Your task to perform on an android device: Open the stopwatch Image 0: 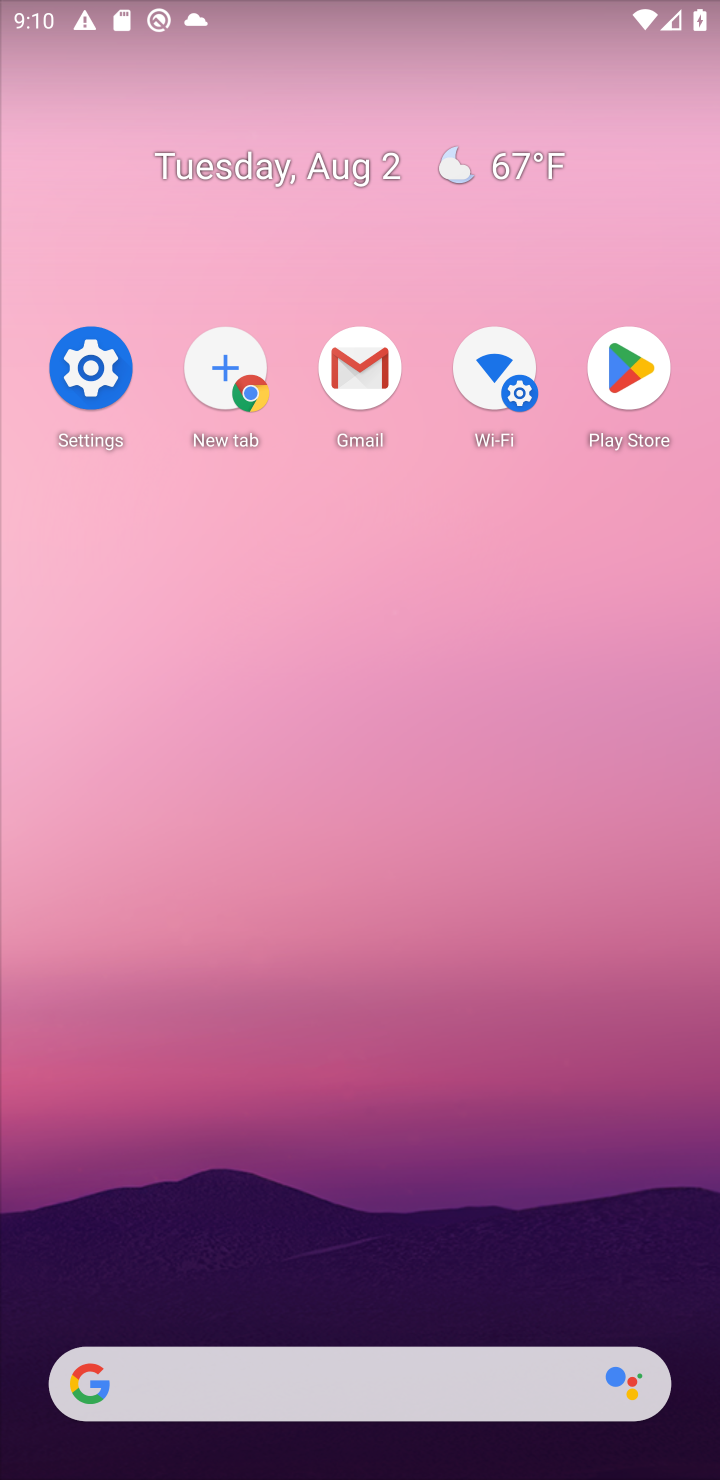
Step 0: drag from (428, 551) to (413, 301)
Your task to perform on an android device: Open the stopwatch Image 1: 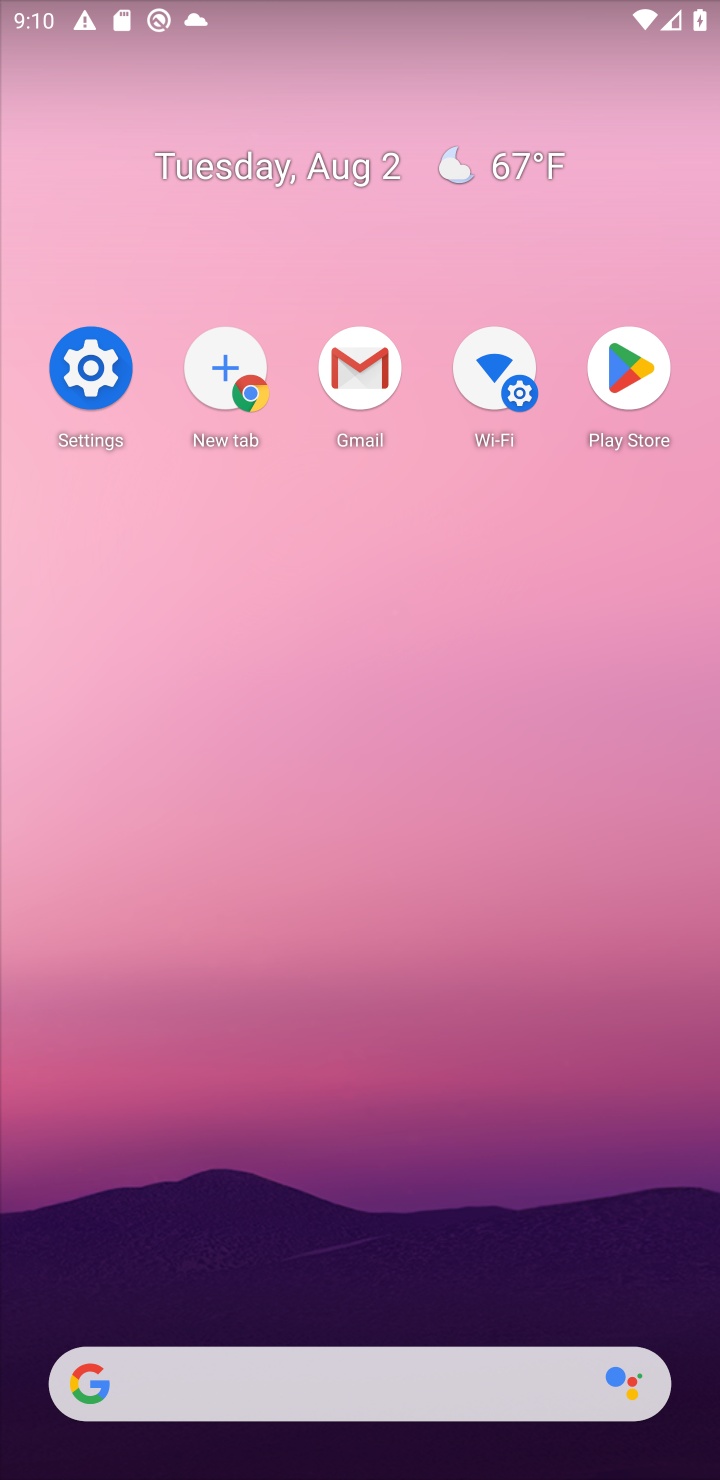
Step 1: drag from (400, 634) to (404, 168)
Your task to perform on an android device: Open the stopwatch Image 2: 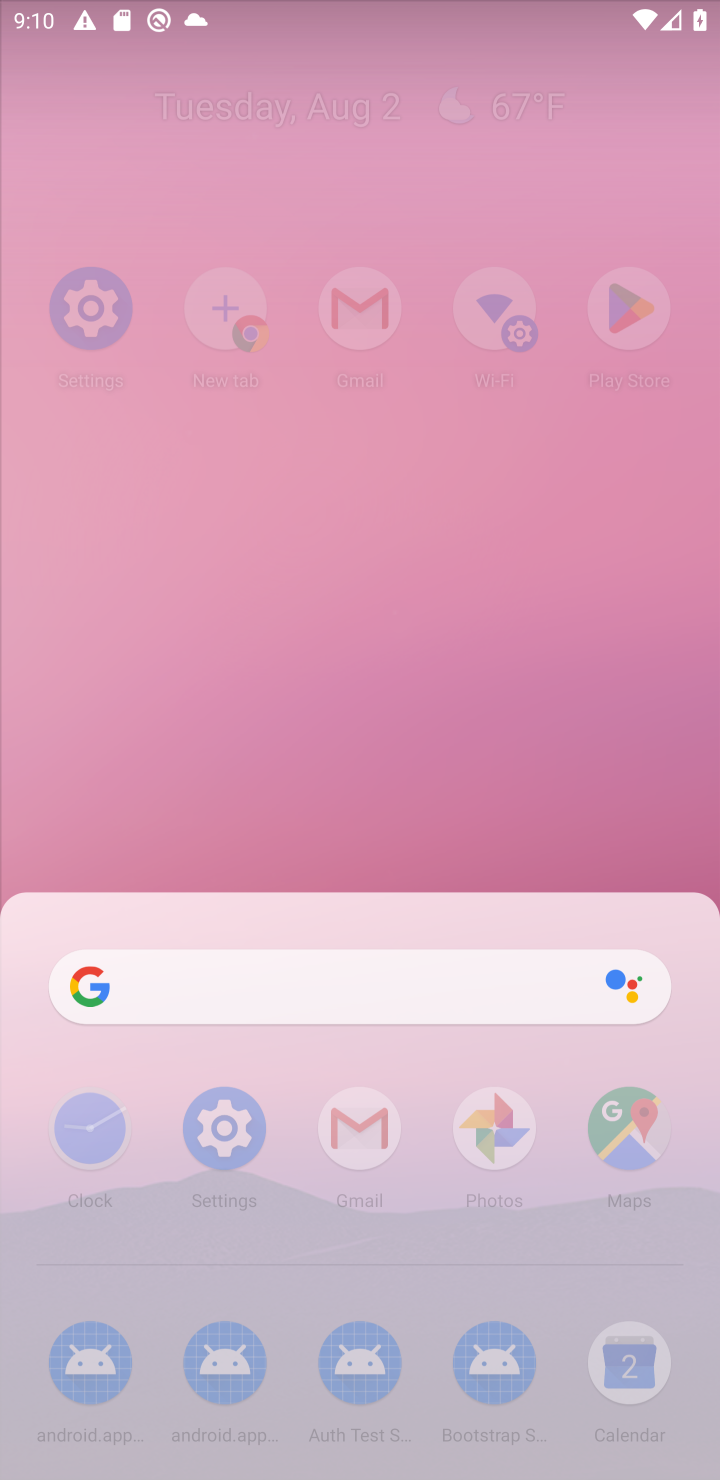
Step 2: click (335, 194)
Your task to perform on an android device: Open the stopwatch Image 3: 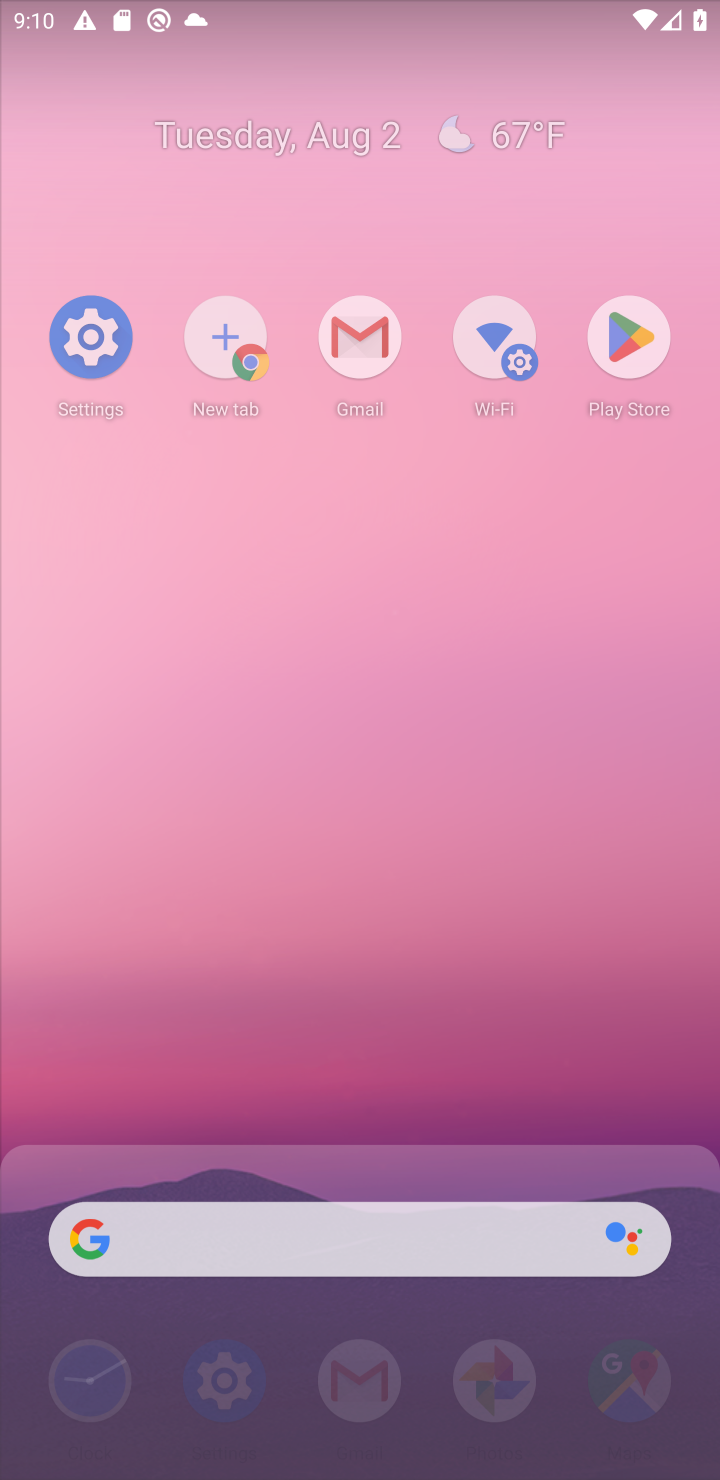
Step 3: click (269, 135)
Your task to perform on an android device: Open the stopwatch Image 4: 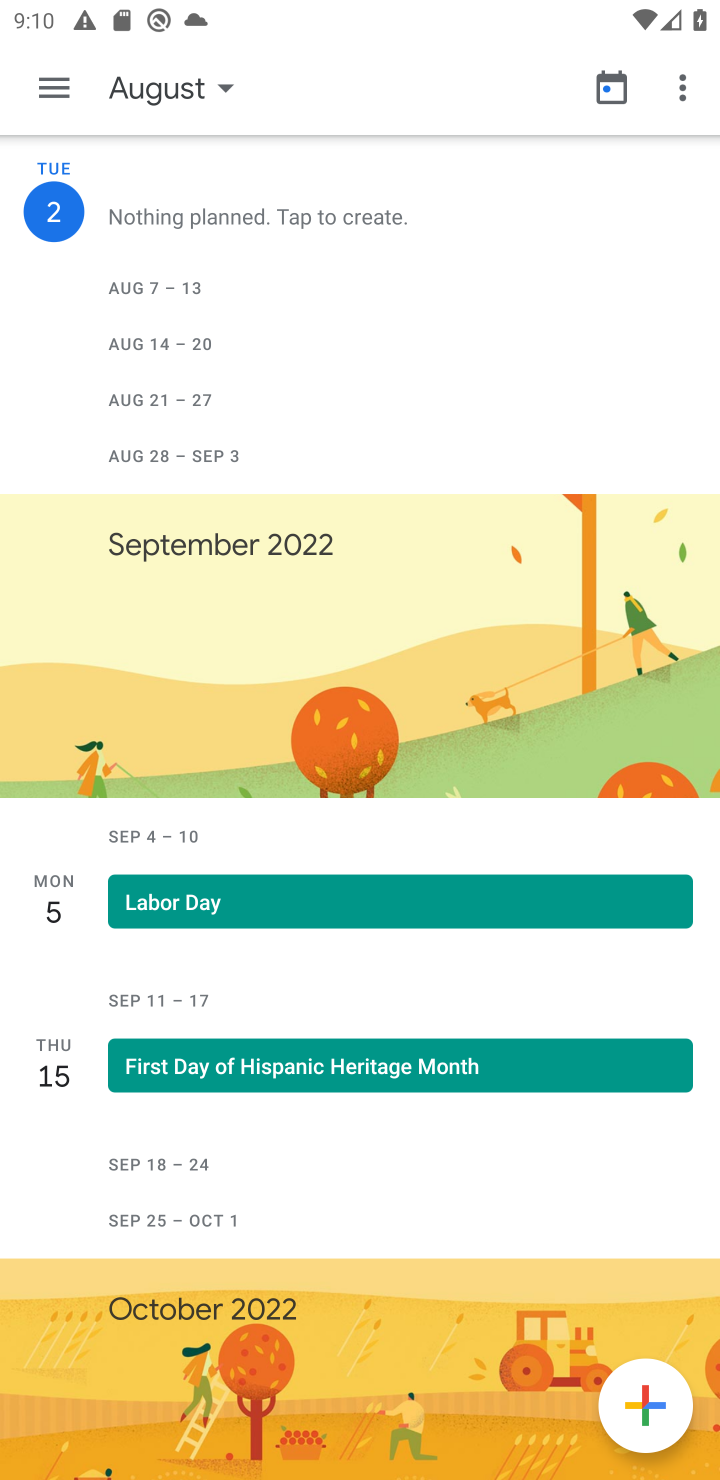
Step 4: press back button
Your task to perform on an android device: Open the stopwatch Image 5: 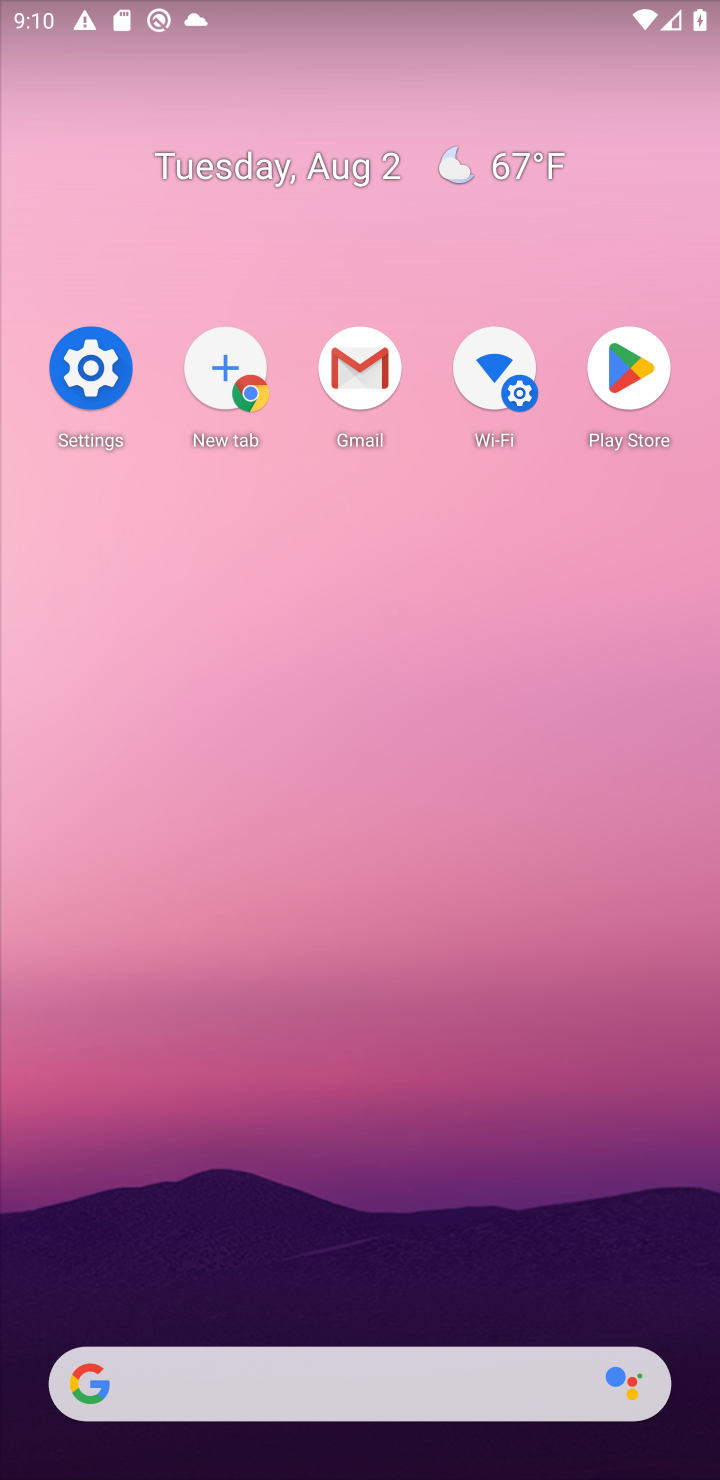
Step 5: drag from (350, 1151) to (292, 769)
Your task to perform on an android device: Open the stopwatch Image 6: 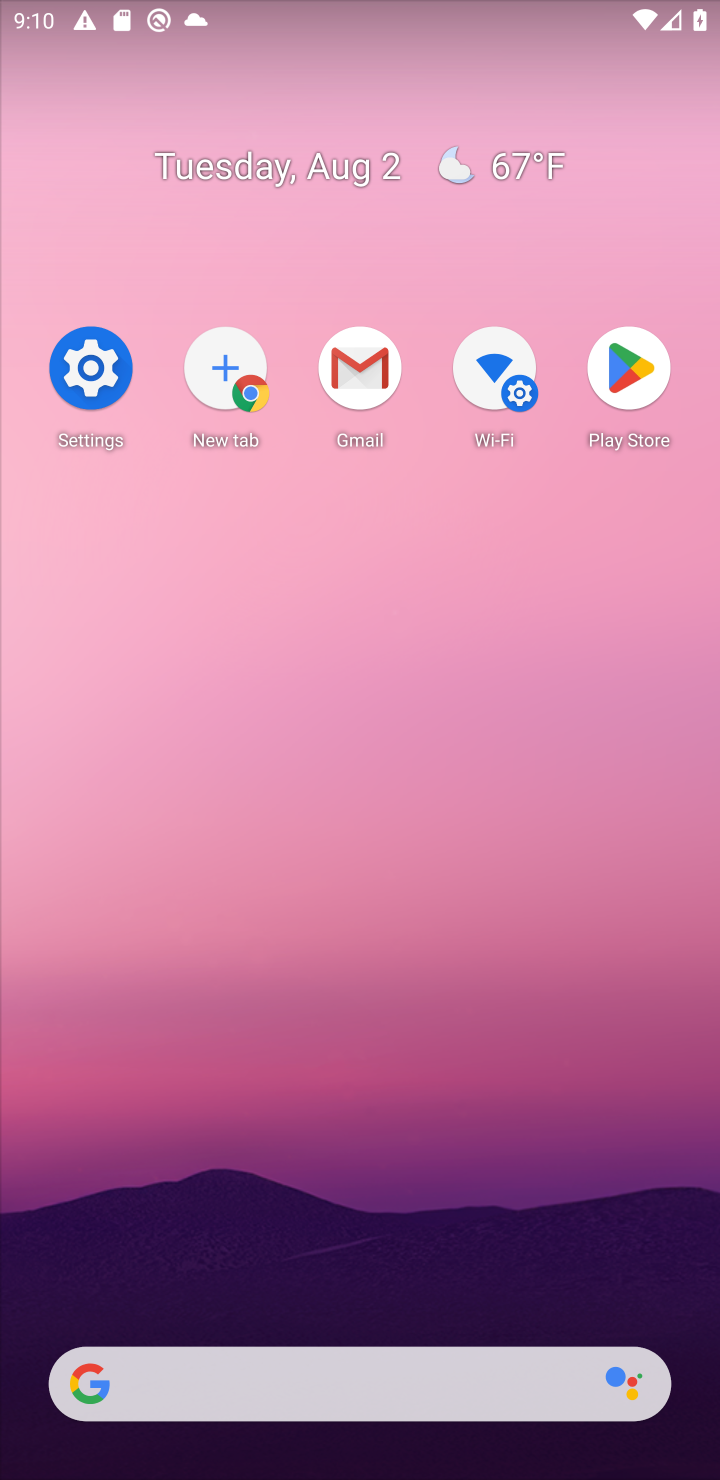
Step 6: drag from (387, 1025) to (352, 470)
Your task to perform on an android device: Open the stopwatch Image 7: 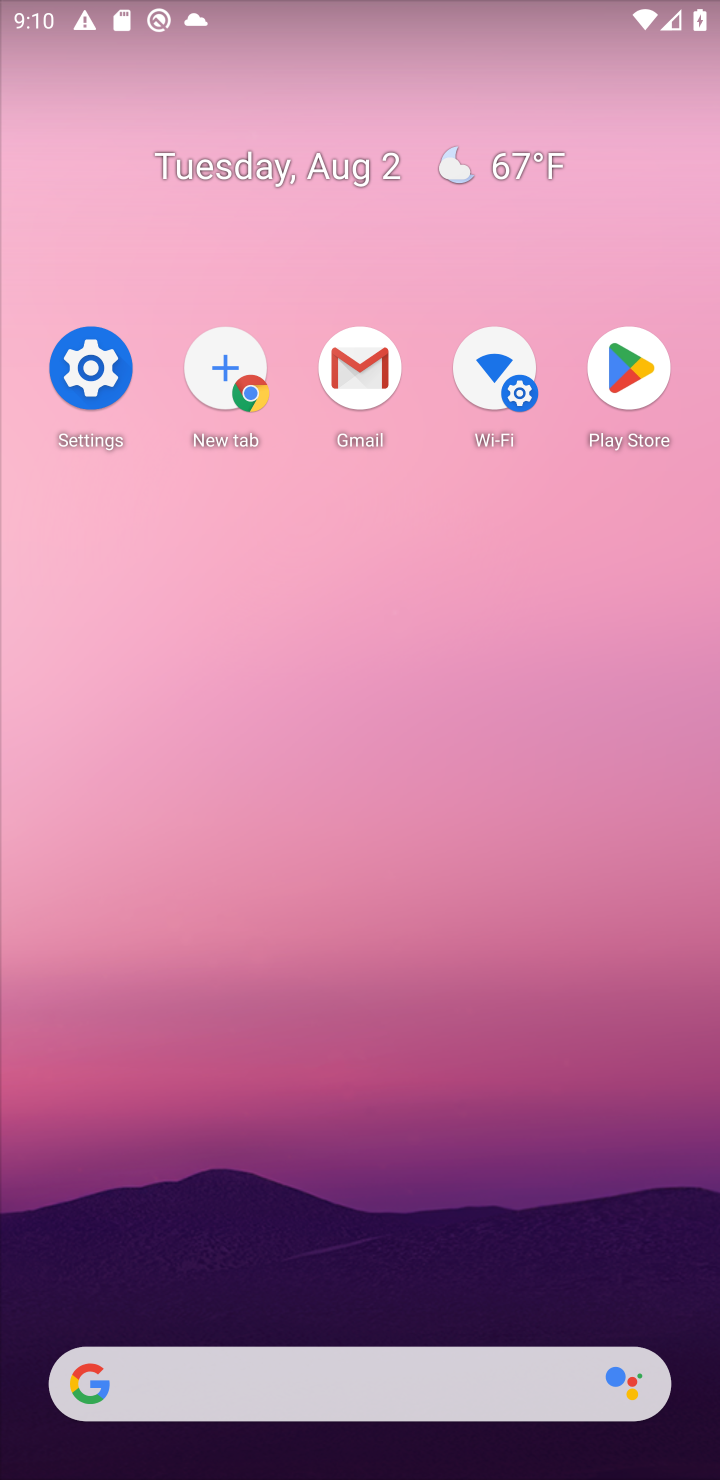
Step 7: drag from (423, 889) to (378, 557)
Your task to perform on an android device: Open the stopwatch Image 8: 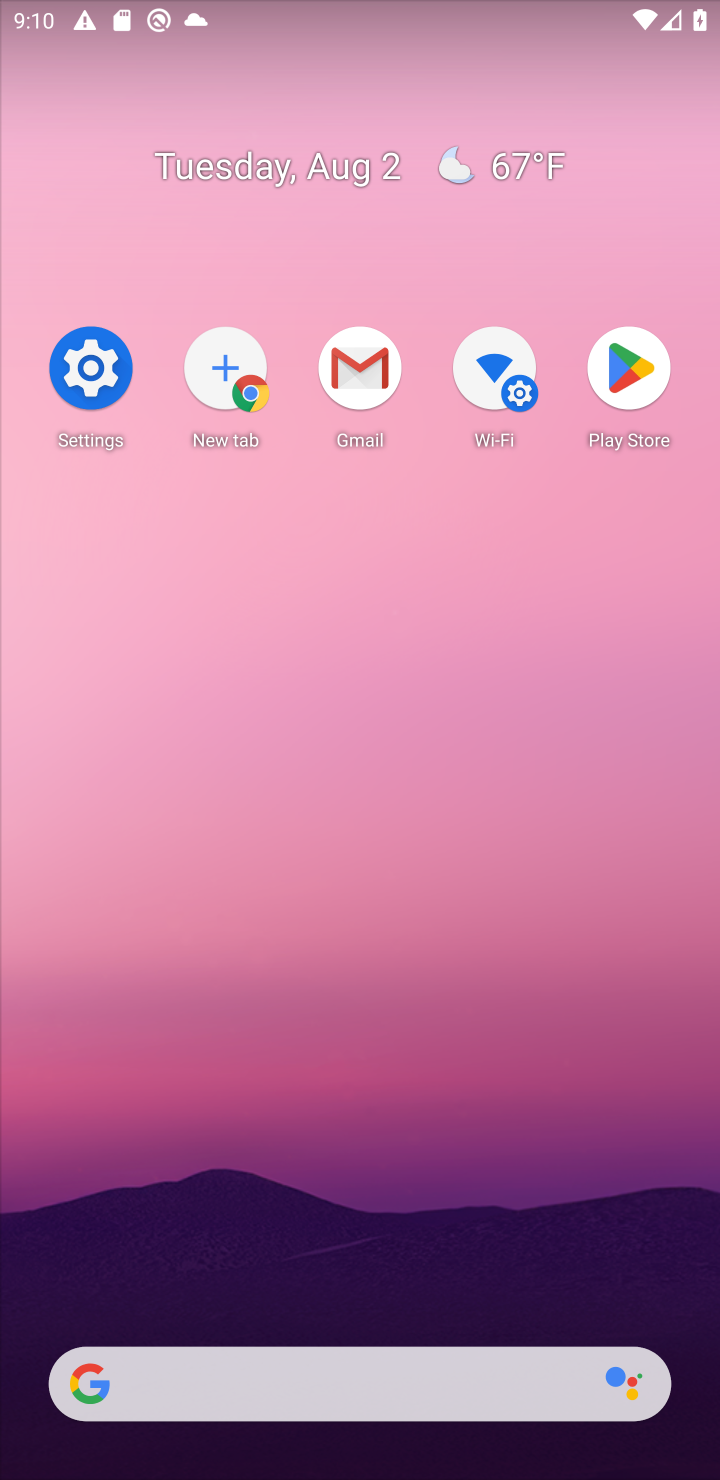
Step 8: drag from (395, 806) to (324, 184)
Your task to perform on an android device: Open the stopwatch Image 9: 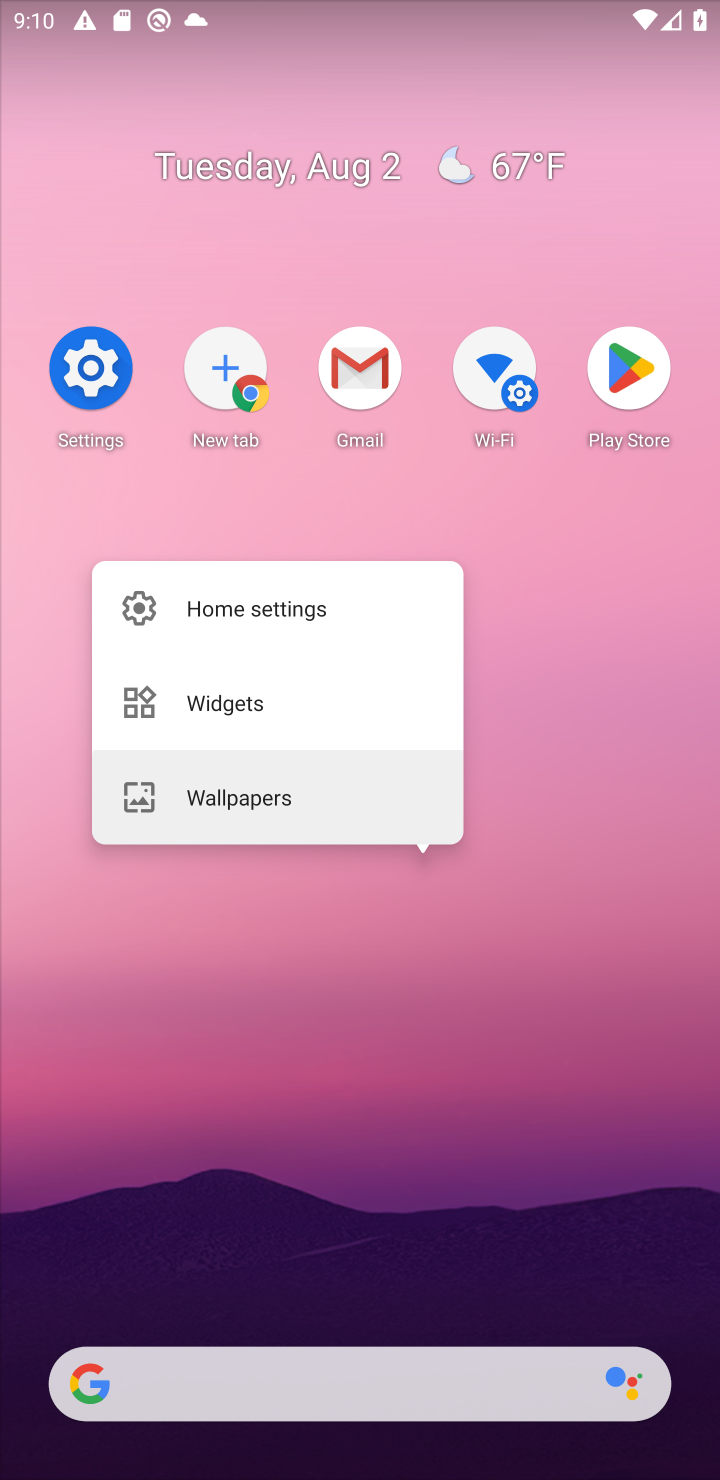
Step 9: drag from (364, 354) to (349, 198)
Your task to perform on an android device: Open the stopwatch Image 10: 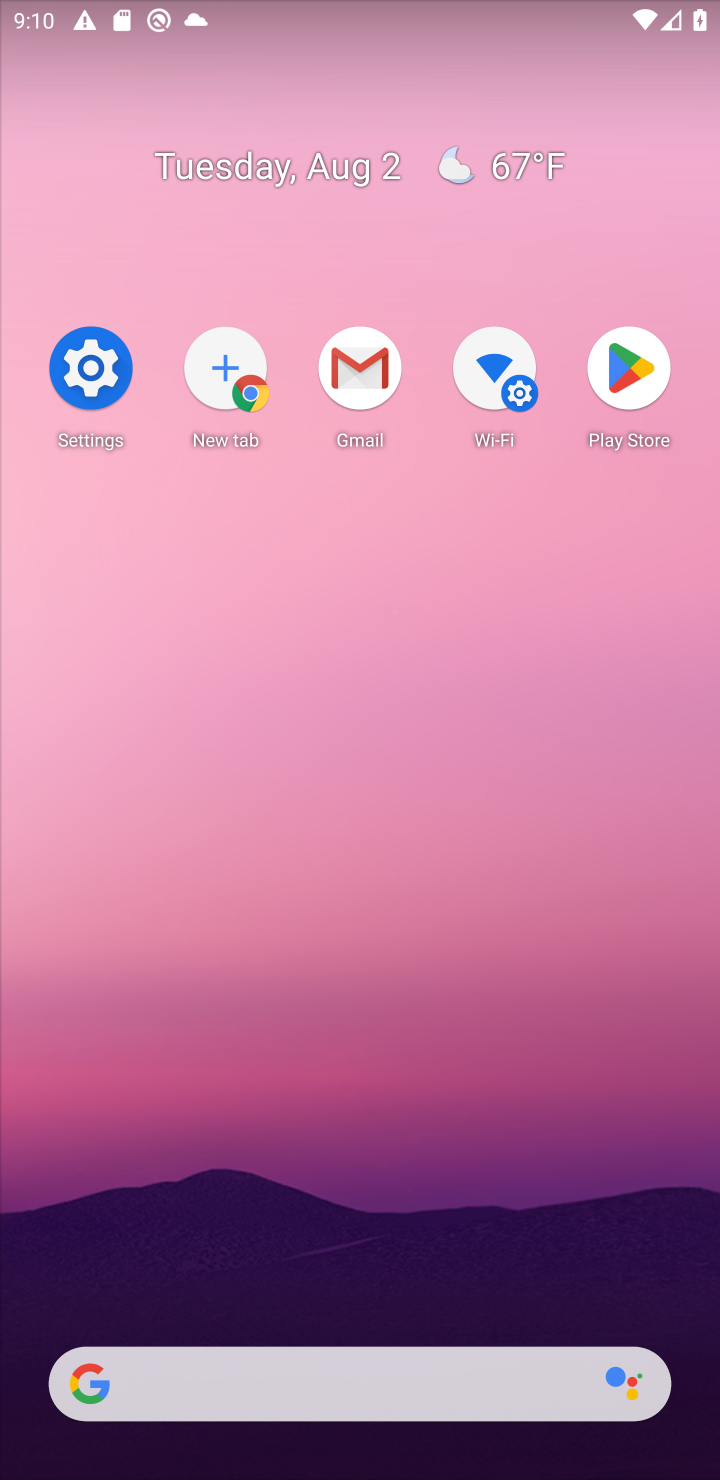
Step 10: click (317, 225)
Your task to perform on an android device: Open the stopwatch Image 11: 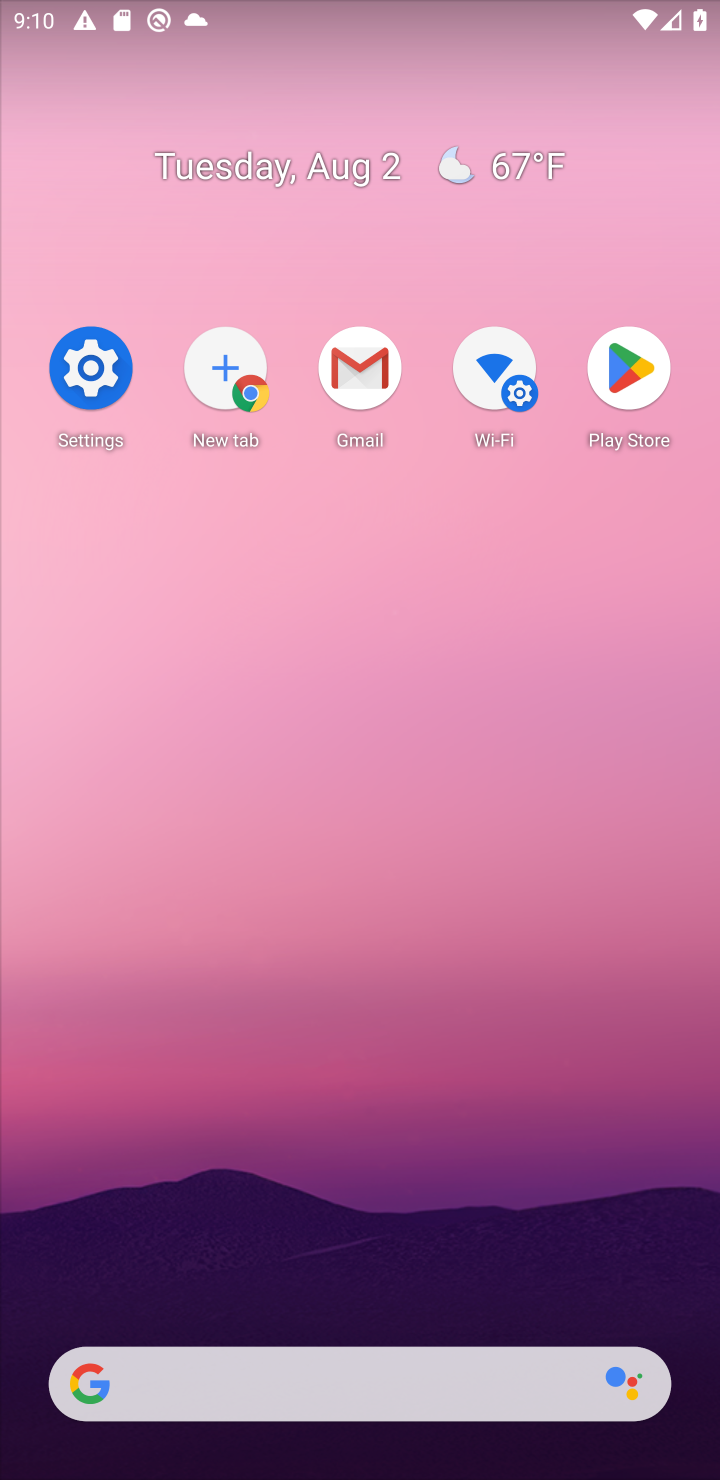
Step 11: drag from (372, 1115) to (295, 162)
Your task to perform on an android device: Open the stopwatch Image 12: 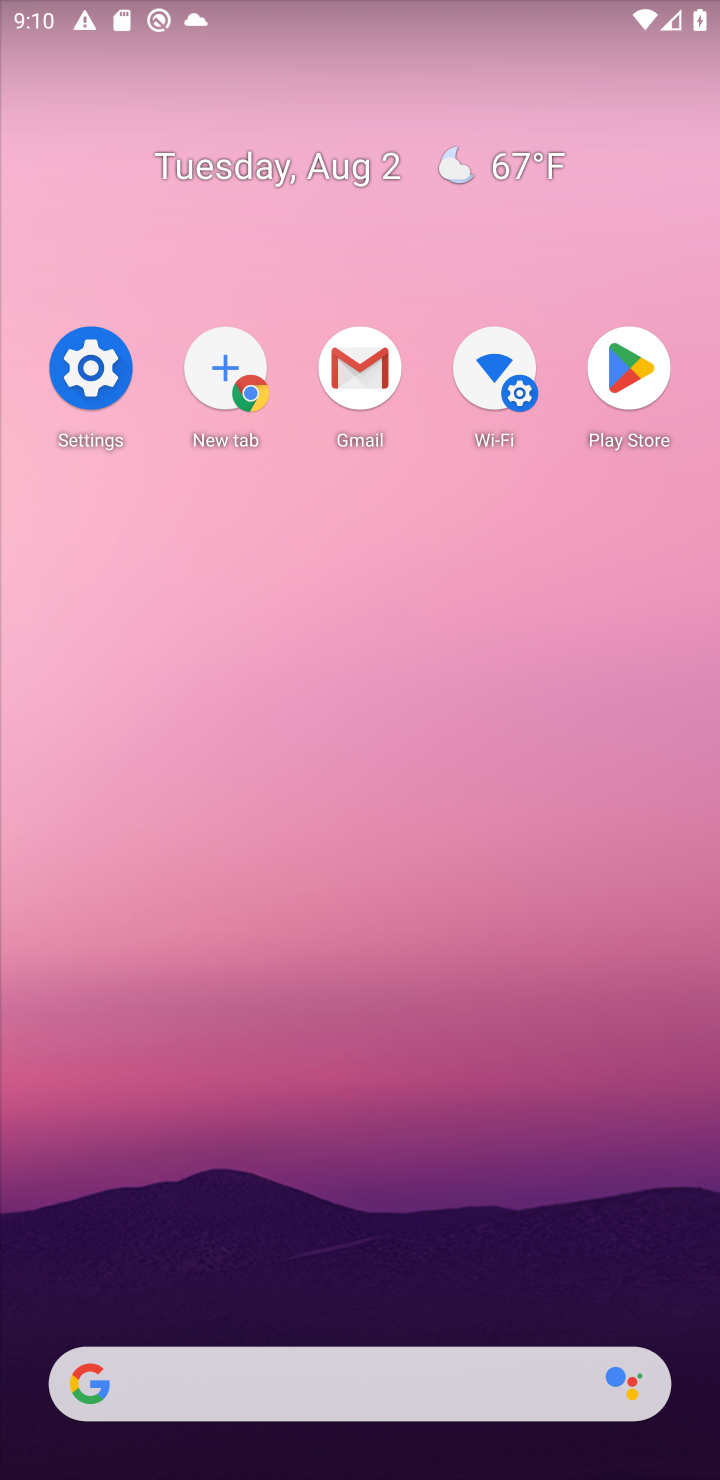
Step 12: drag from (420, 698) to (241, 224)
Your task to perform on an android device: Open the stopwatch Image 13: 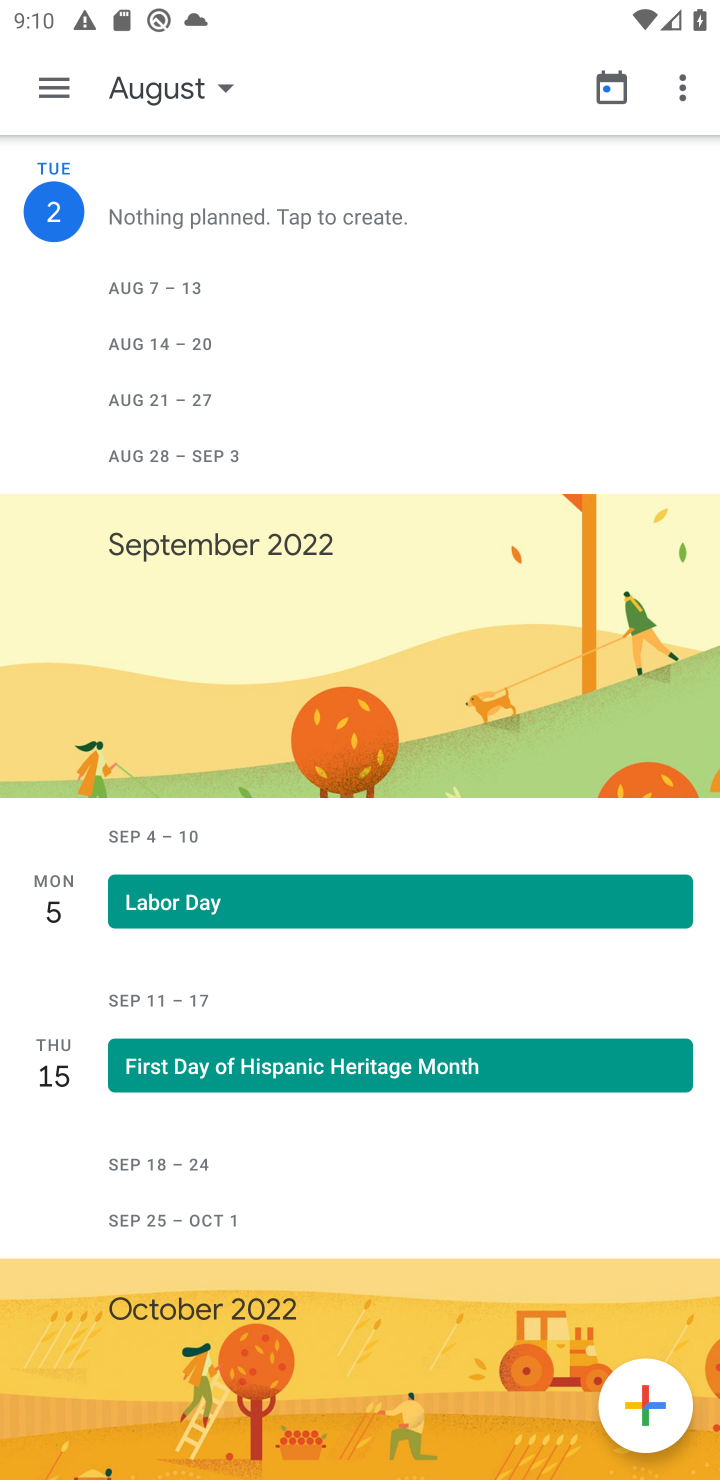
Step 13: press back button
Your task to perform on an android device: Open the stopwatch Image 14: 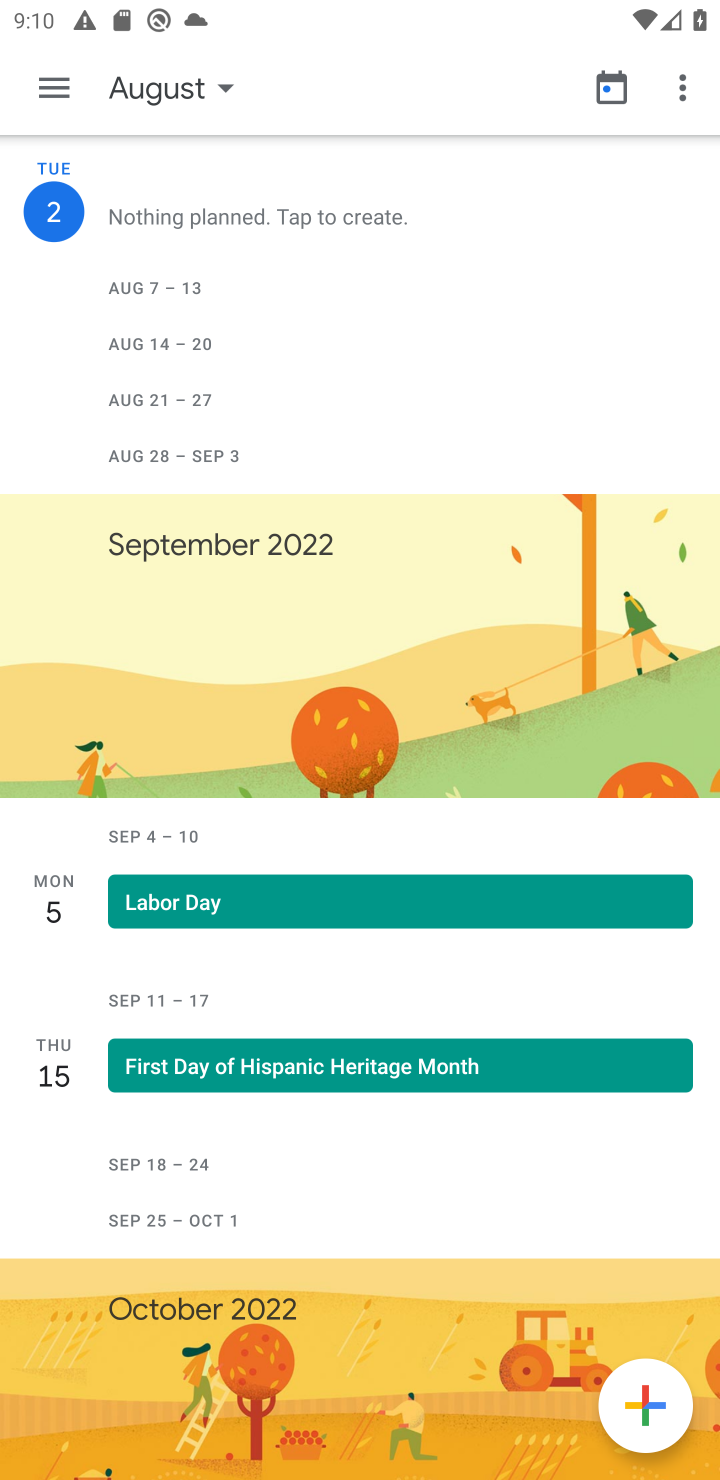
Step 14: press back button
Your task to perform on an android device: Open the stopwatch Image 15: 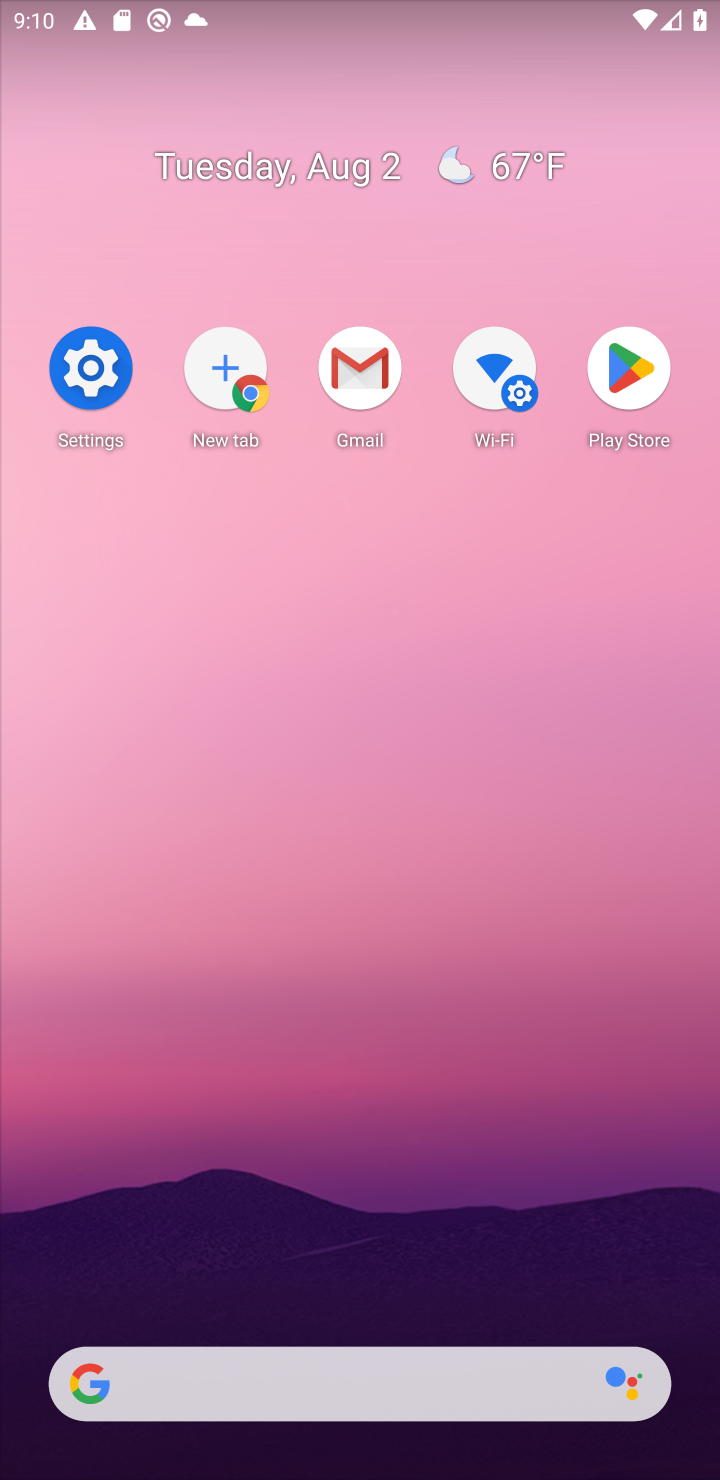
Step 15: drag from (429, 1206) to (360, 279)
Your task to perform on an android device: Open the stopwatch Image 16: 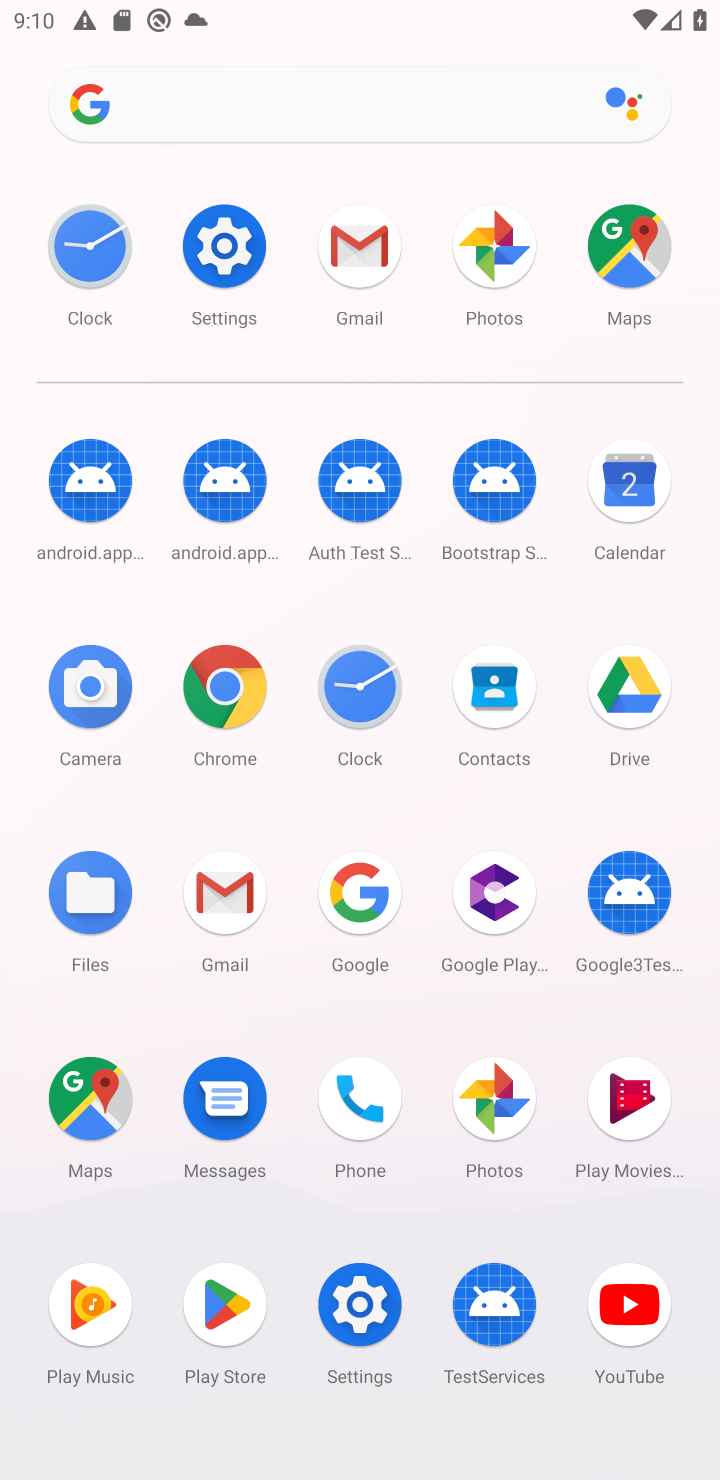
Step 16: click (358, 717)
Your task to perform on an android device: Open the stopwatch Image 17: 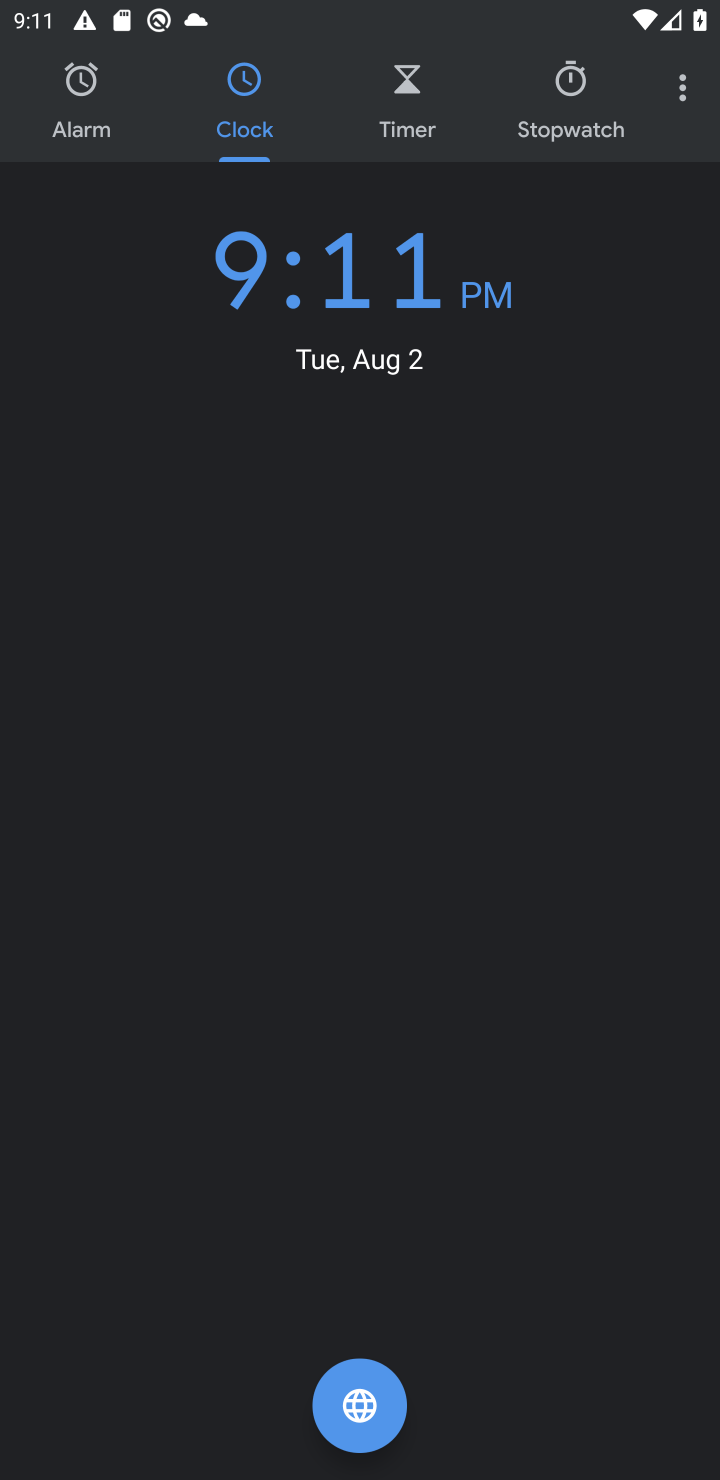
Step 17: click (552, 118)
Your task to perform on an android device: Open the stopwatch Image 18: 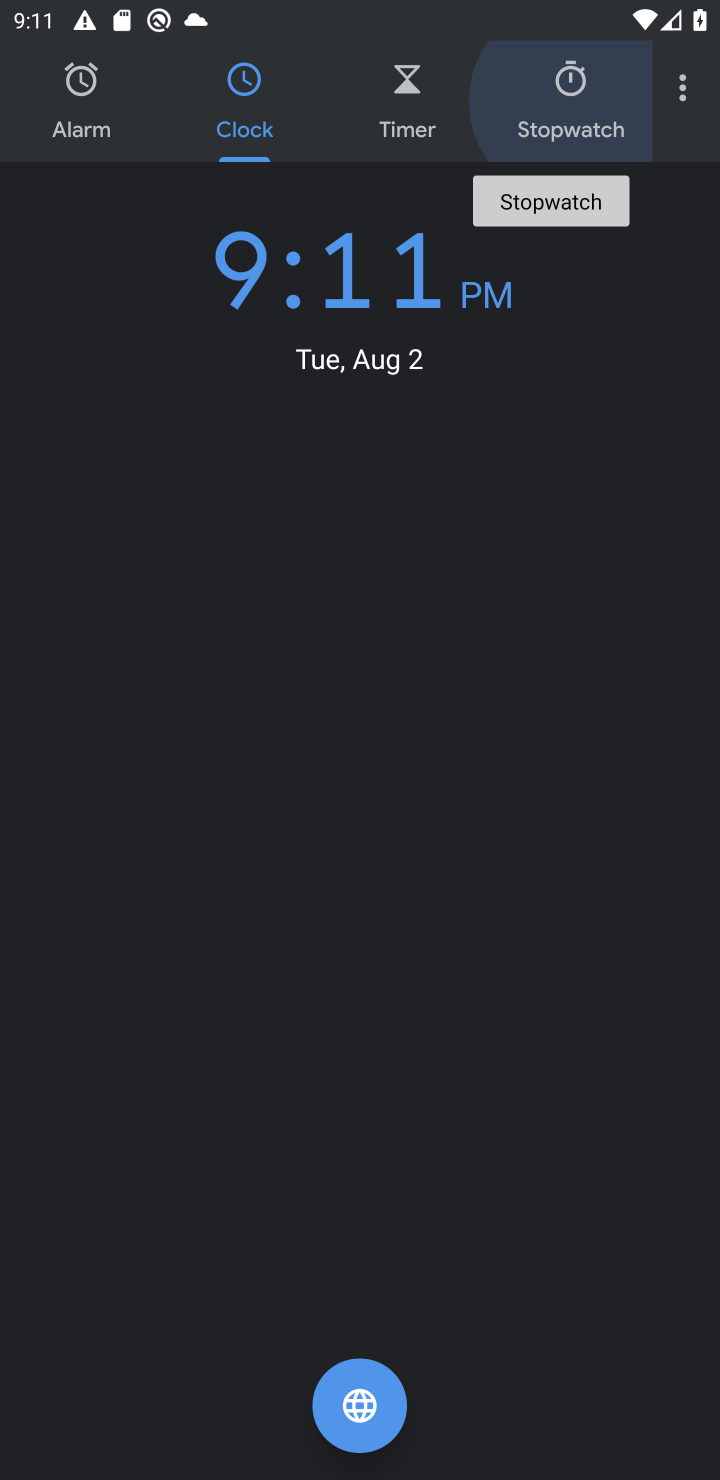
Step 18: click (567, 116)
Your task to perform on an android device: Open the stopwatch Image 19: 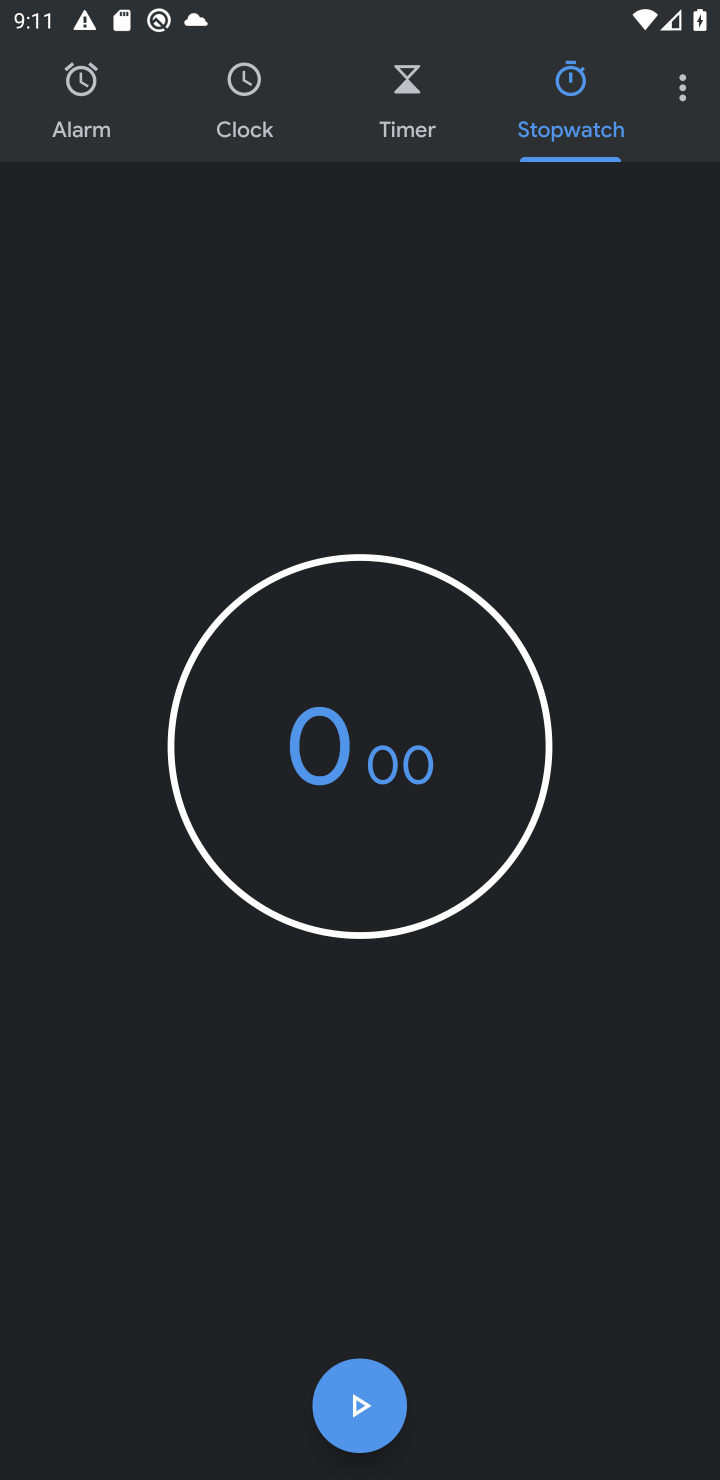
Step 19: click (361, 1414)
Your task to perform on an android device: Open the stopwatch Image 20: 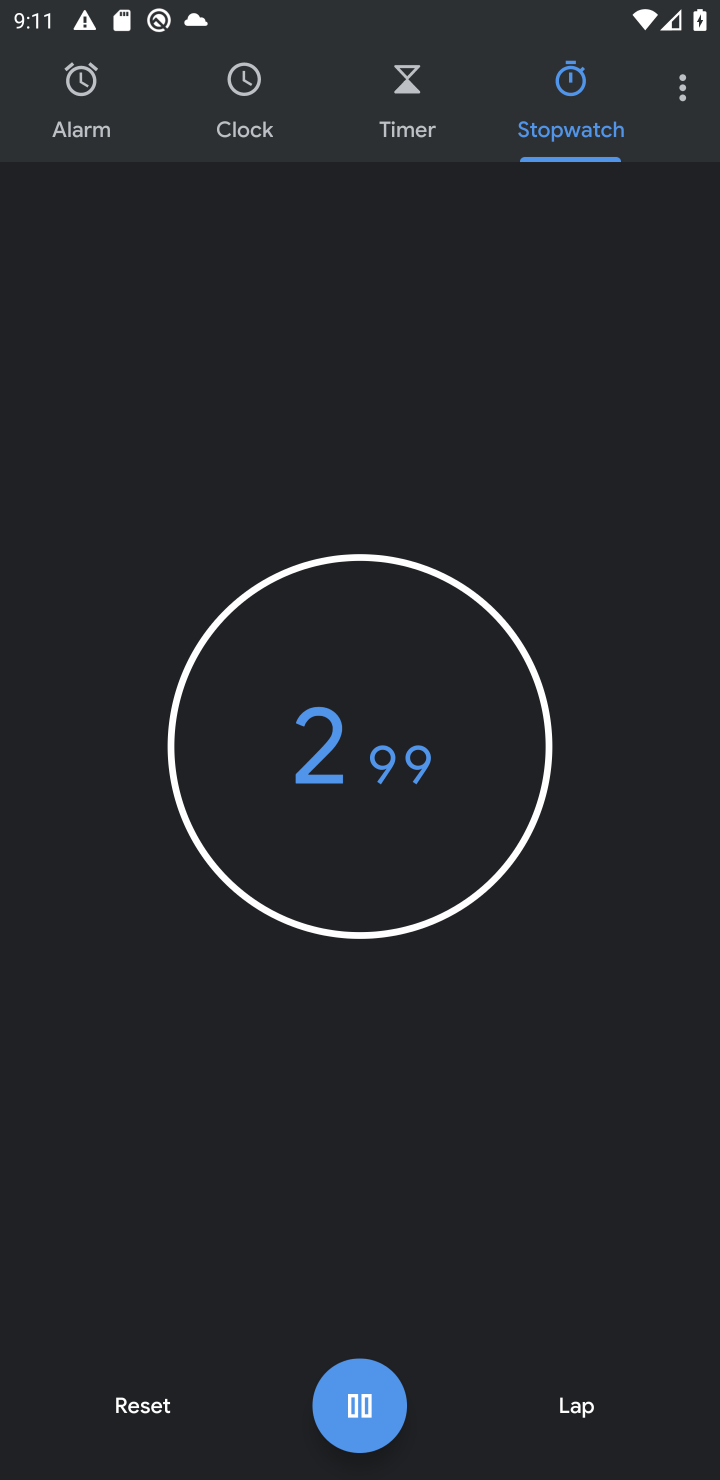
Step 20: click (363, 1412)
Your task to perform on an android device: Open the stopwatch Image 21: 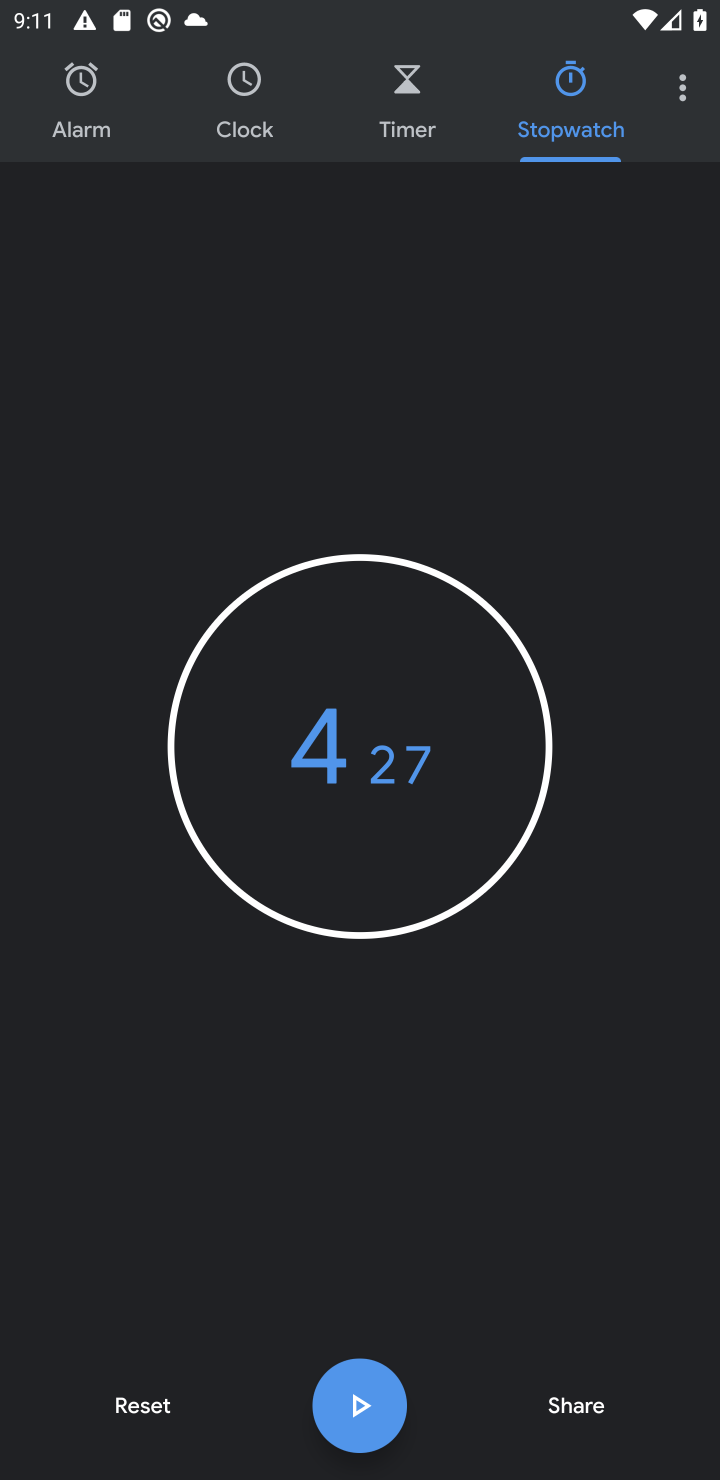
Step 21: task complete